Your task to perform on an android device: change your default location settings in chrome Image 0: 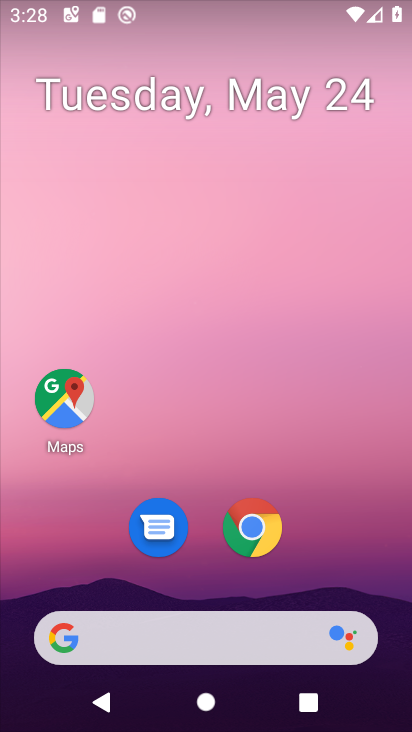
Step 0: click (258, 538)
Your task to perform on an android device: change your default location settings in chrome Image 1: 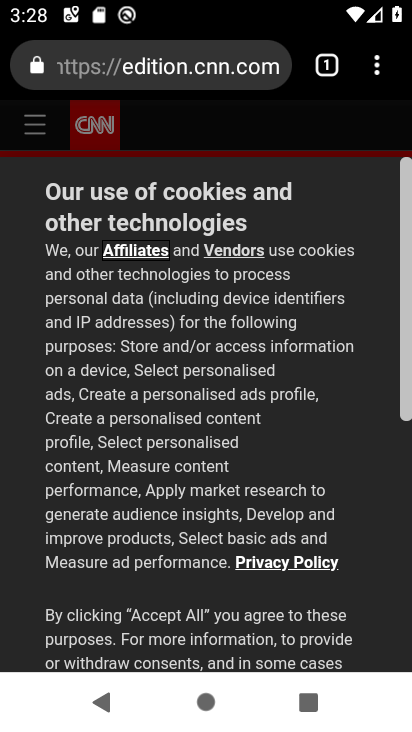
Step 1: click (375, 67)
Your task to perform on an android device: change your default location settings in chrome Image 2: 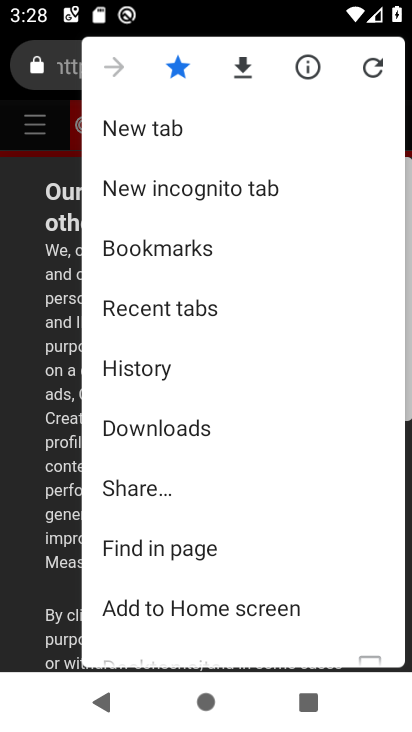
Step 2: drag from (260, 467) to (282, 207)
Your task to perform on an android device: change your default location settings in chrome Image 3: 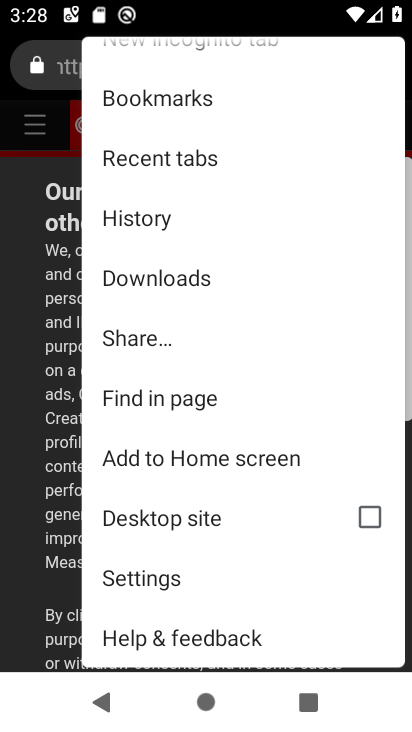
Step 3: click (129, 580)
Your task to perform on an android device: change your default location settings in chrome Image 4: 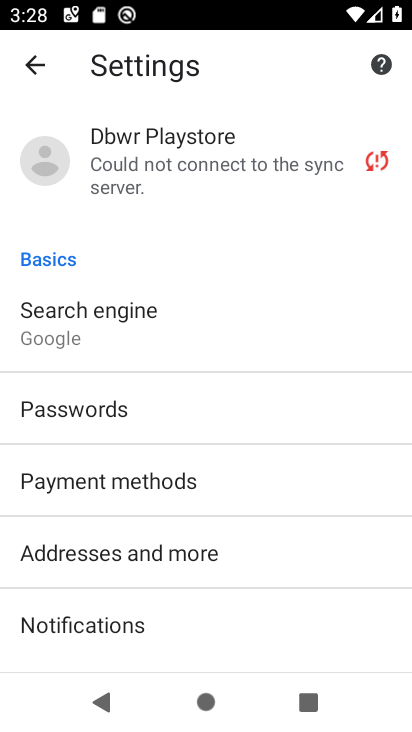
Step 4: drag from (235, 527) to (208, 248)
Your task to perform on an android device: change your default location settings in chrome Image 5: 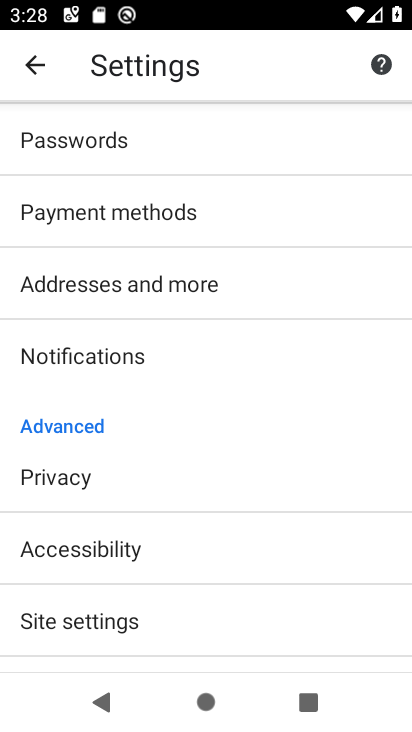
Step 5: drag from (209, 482) to (210, 210)
Your task to perform on an android device: change your default location settings in chrome Image 6: 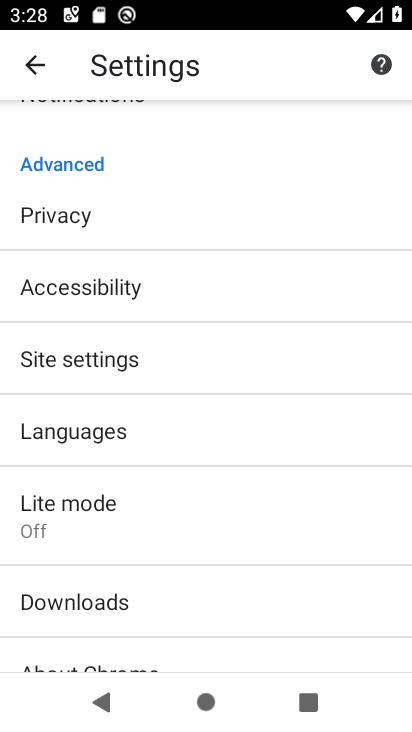
Step 6: click (97, 357)
Your task to perform on an android device: change your default location settings in chrome Image 7: 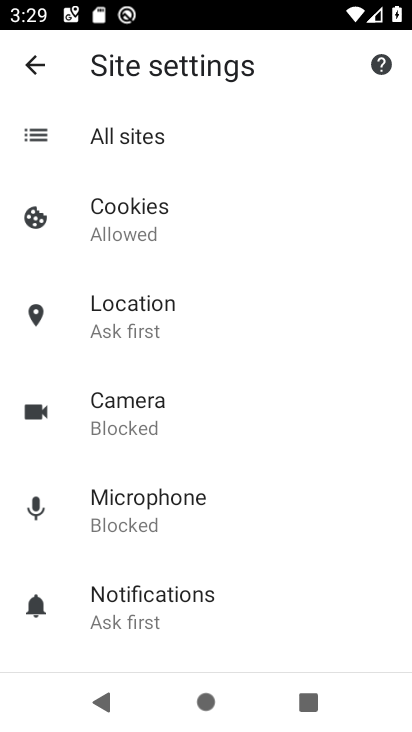
Step 7: click (122, 329)
Your task to perform on an android device: change your default location settings in chrome Image 8: 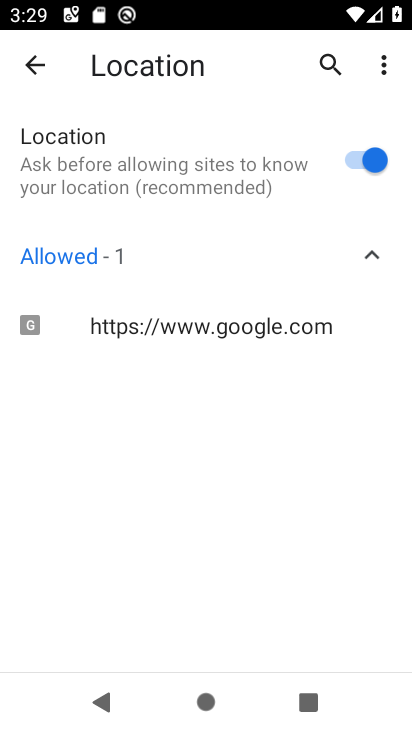
Step 8: click (386, 166)
Your task to perform on an android device: change your default location settings in chrome Image 9: 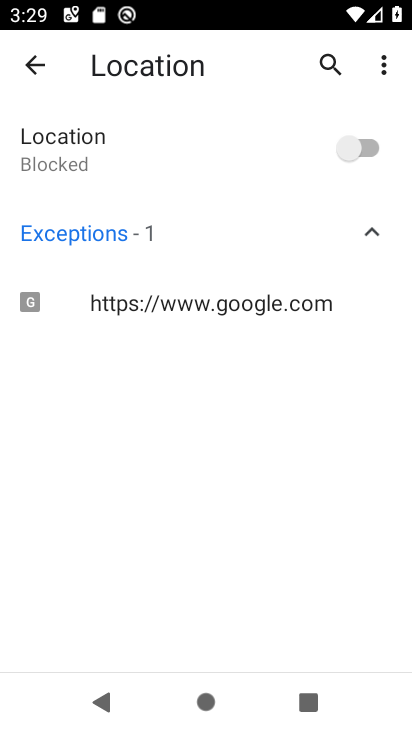
Step 9: task complete